Your task to perform on an android device: Play the last video I watched on Youtube Image 0: 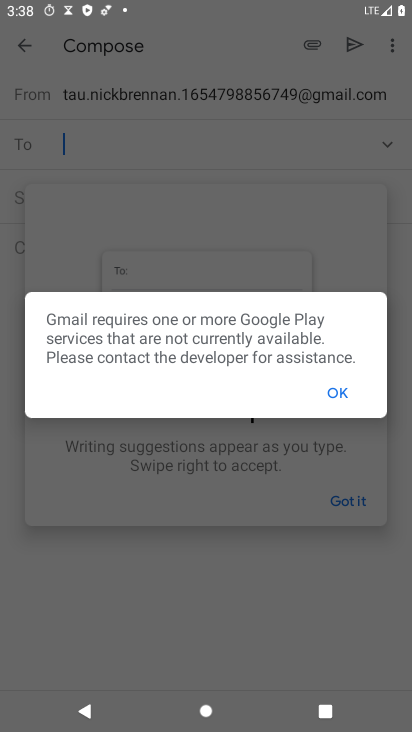
Step 0: press home button
Your task to perform on an android device: Play the last video I watched on Youtube Image 1: 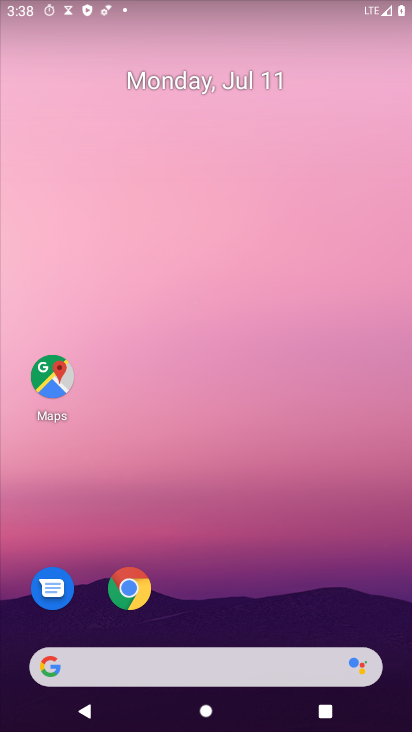
Step 1: drag from (283, 629) to (297, 13)
Your task to perform on an android device: Play the last video I watched on Youtube Image 2: 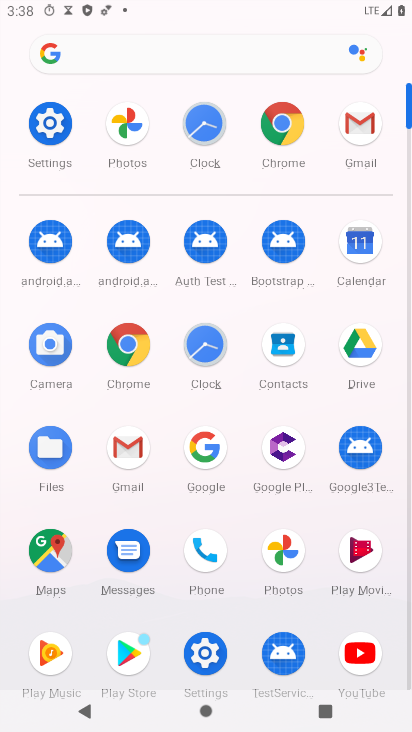
Step 2: click (364, 656)
Your task to perform on an android device: Play the last video I watched on Youtube Image 3: 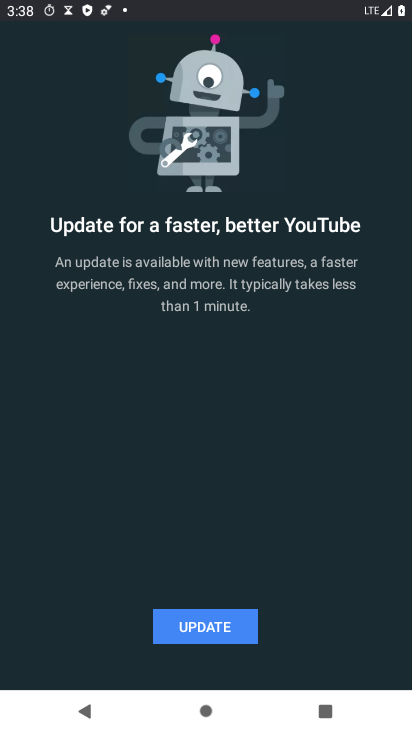
Step 3: click (196, 628)
Your task to perform on an android device: Play the last video I watched on Youtube Image 4: 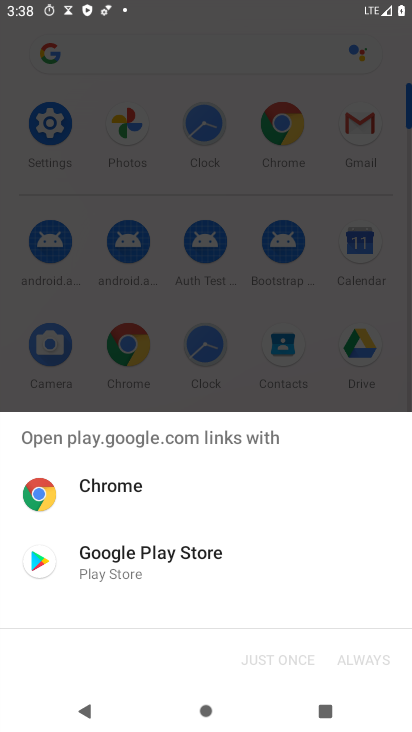
Step 4: click (188, 548)
Your task to perform on an android device: Play the last video I watched on Youtube Image 5: 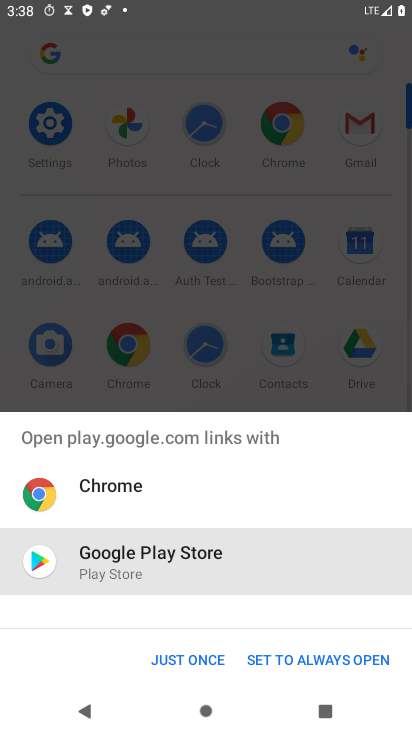
Step 5: click (199, 658)
Your task to perform on an android device: Play the last video I watched on Youtube Image 6: 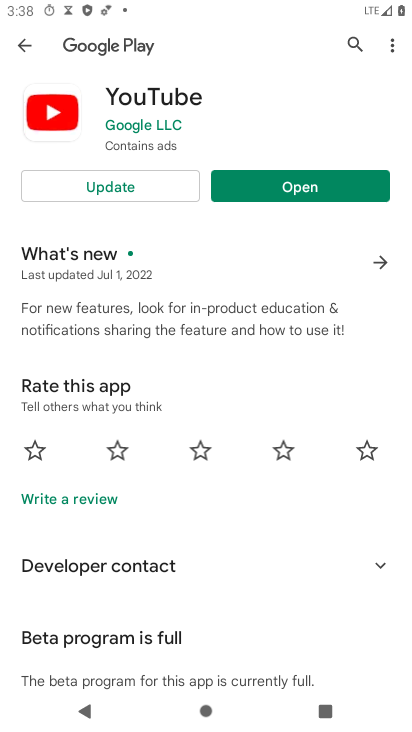
Step 6: click (52, 183)
Your task to perform on an android device: Play the last video I watched on Youtube Image 7: 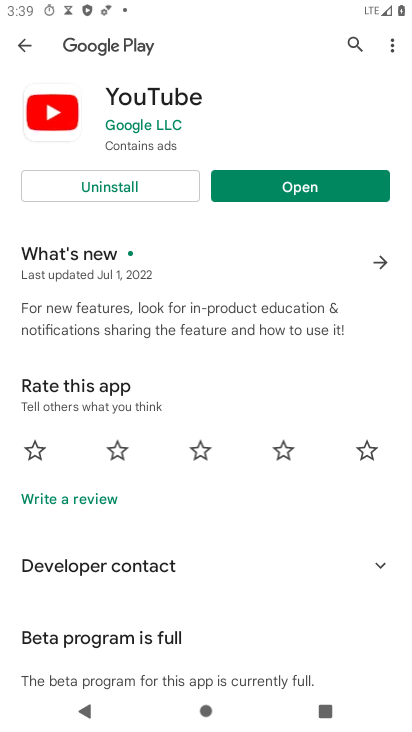
Step 7: click (249, 185)
Your task to perform on an android device: Play the last video I watched on Youtube Image 8: 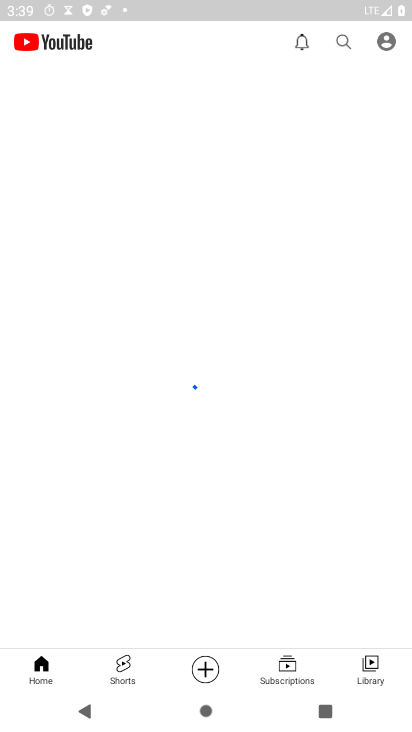
Step 8: click (369, 658)
Your task to perform on an android device: Play the last video I watched on Youtube Image 9: 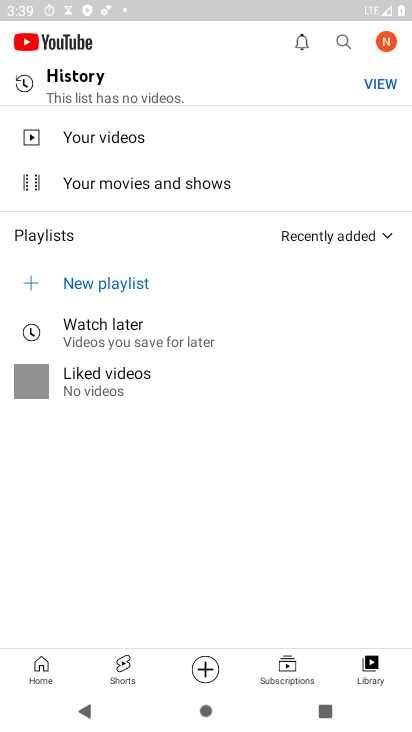
Step 9: click (134, 92)
Your task to perform on an android device: Play the last video I watched on Youtube Image 10: 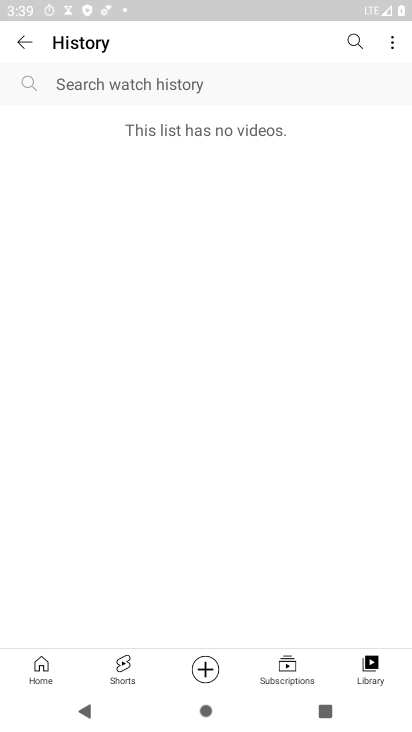
Step 10: task complete